Your task to perform on an android device: Go to display settings Image 0: 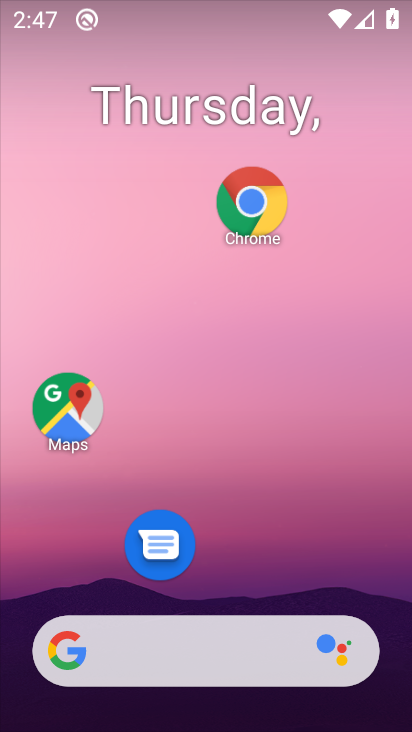
Step 0: drag from (228, 613) to (339, 1)
Your task to perform on an android device: Go to display settings Image 1: 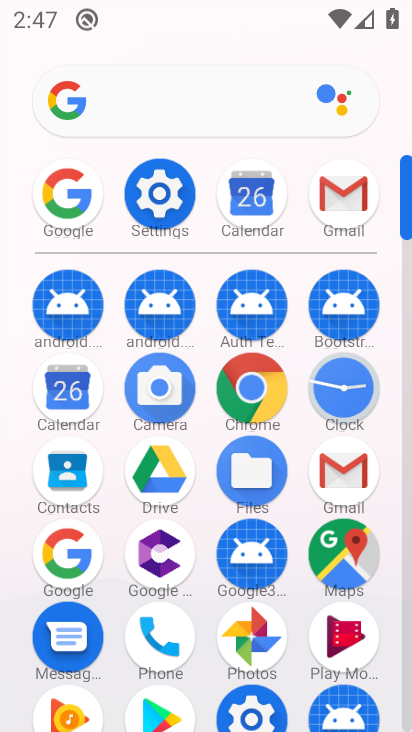
Step 1: click (166, 194)
Your task to perform on an android device: Go to display settings Image 2: 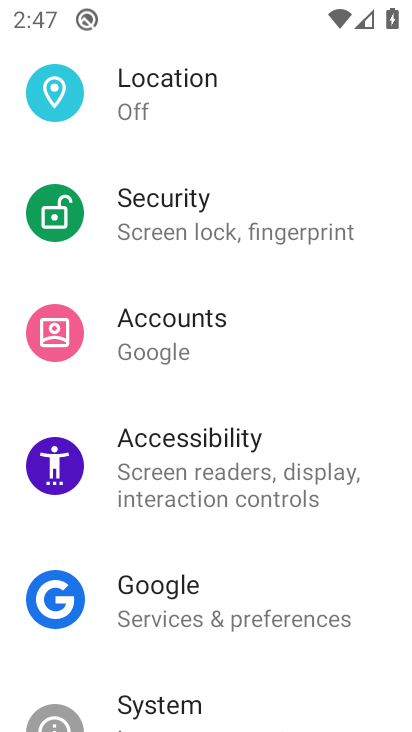
Step 2: drag from (184, 127) to (176, 563)
Your task to perform on an android device: Go to display settings Image 3: 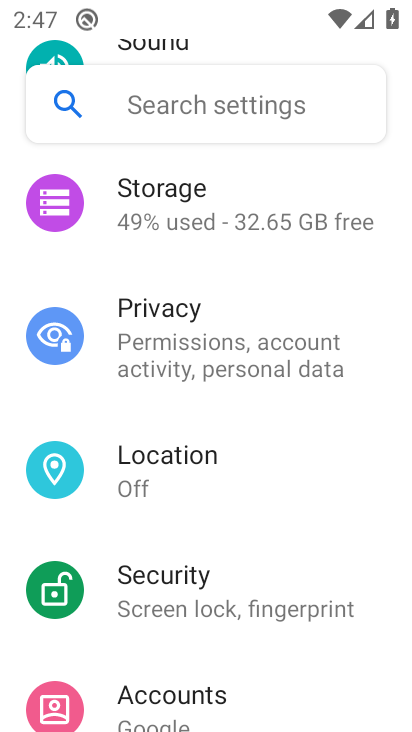
Step 3: drag from (212, 173) to (182, 639)
Your task to perform on an android device: Go to display settings Image 4: 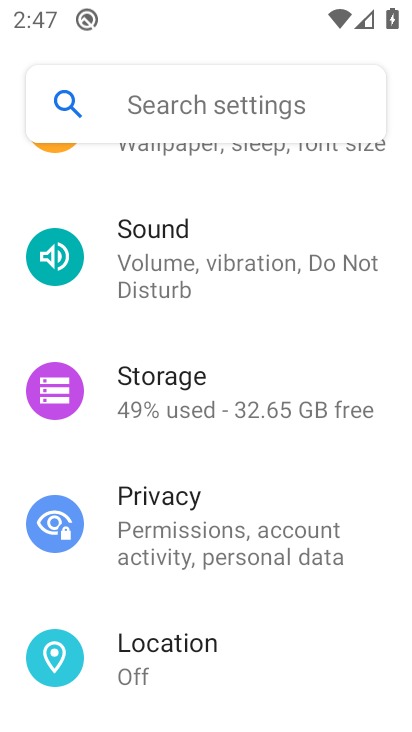
Step 4: drag from (179, 179) to (112, 576)
Your task to perform on an android device: Go to display settings Image 5: 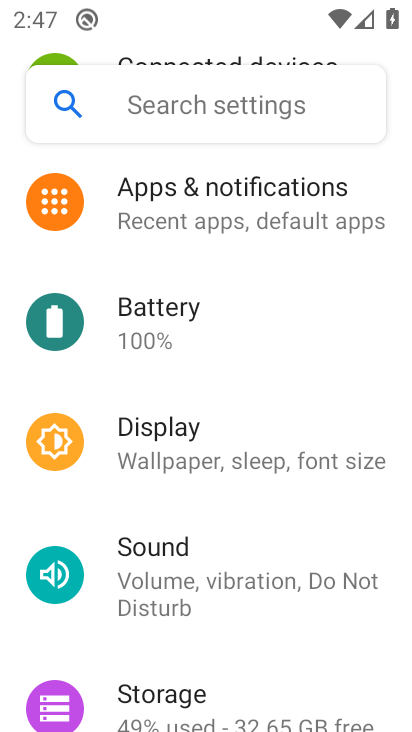
Step 5: drag from (166, 173) to (146, 507)
Your task to perform on an android device: Go to display settings Image 6: 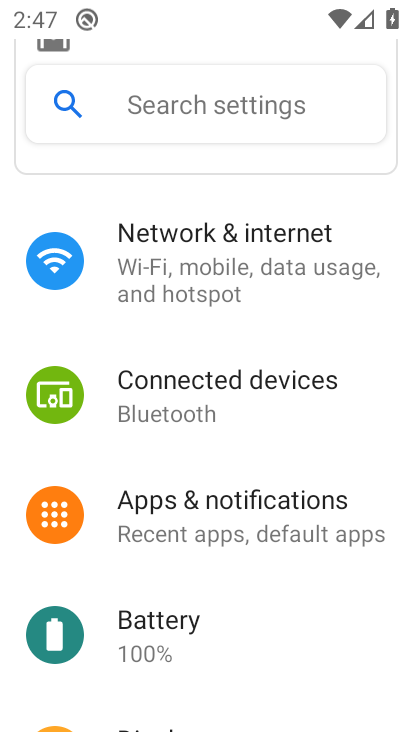
Step 6: drag from (177, 697) to (278, 135)
Your task to perform on an android device: Go to display settings Image 7: 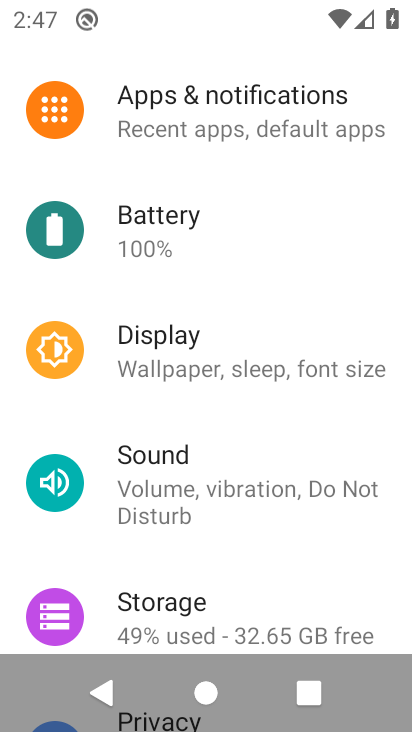
Step 7: drag from (190, 636) to (278, 29)
Your task to perform on an android device: Go to display settings Image 8: 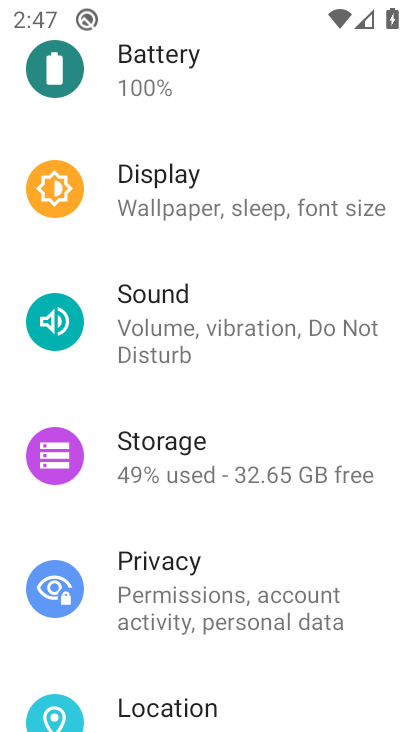
Step 8: click (214, 179)
Your task to perform on an android device: Go to display settings Image 9: 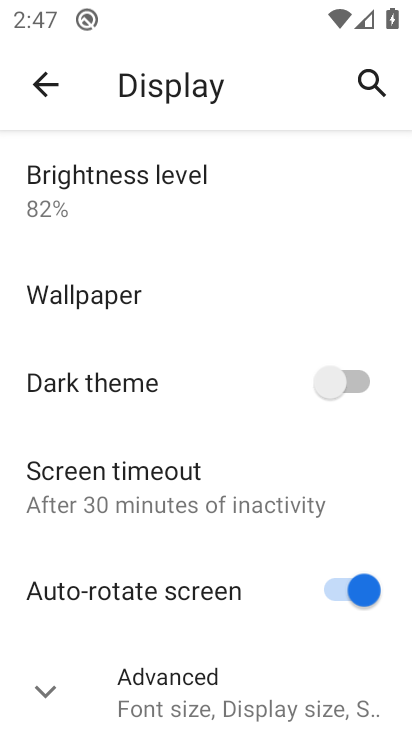
Step 9: click (157, 693)
Your task to perform on an android device: Go to display settings Image 10: 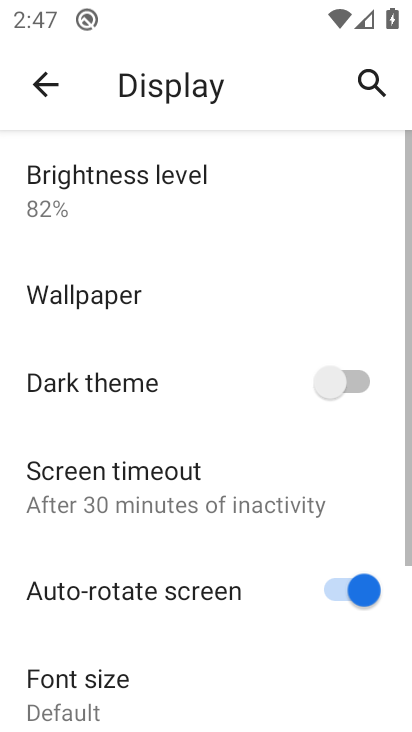
Step 10: task complete